Your task to perform on an android device: Open the phone app and click the voicemail tab. Image 0: 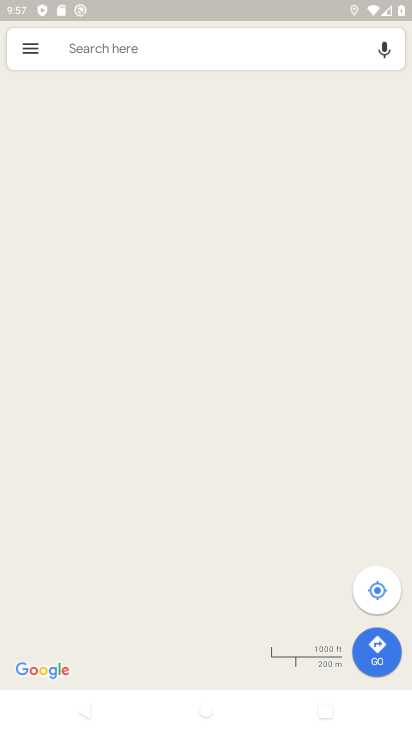
Step 0: press home button
Your task to perform on an android device: Open the phone app and click the voicemail tab. Image 1: 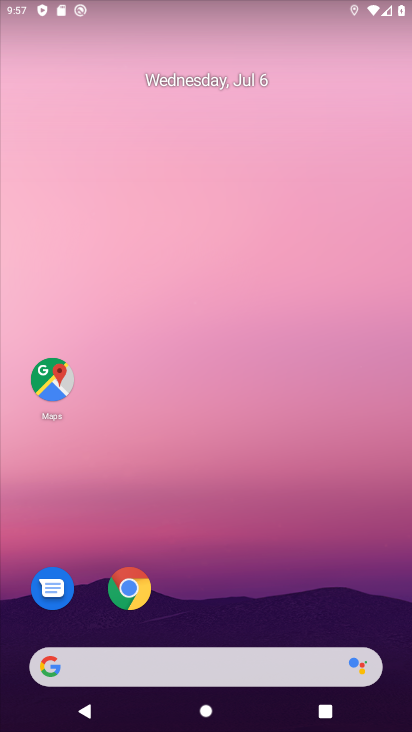
Step 1: drag from (245, 628) to (238, 208)
Your task to perform on an android device: Open the phone app and click the voicemail tab. Image 2: 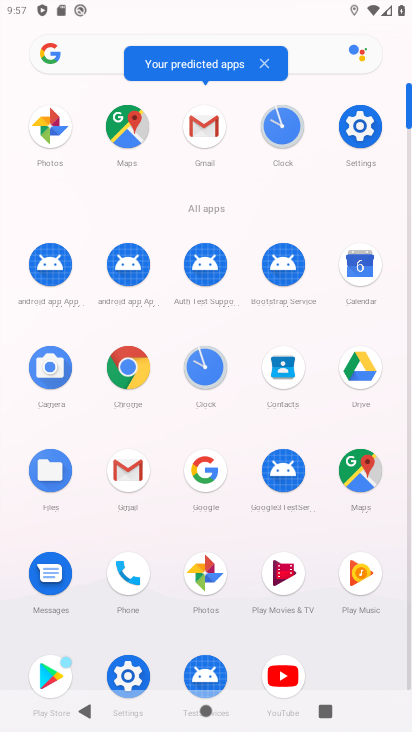
Step 2: click (115, 574)
Your task to perform on an android device: Open the phone app and click the voicemail tab. Image 3: 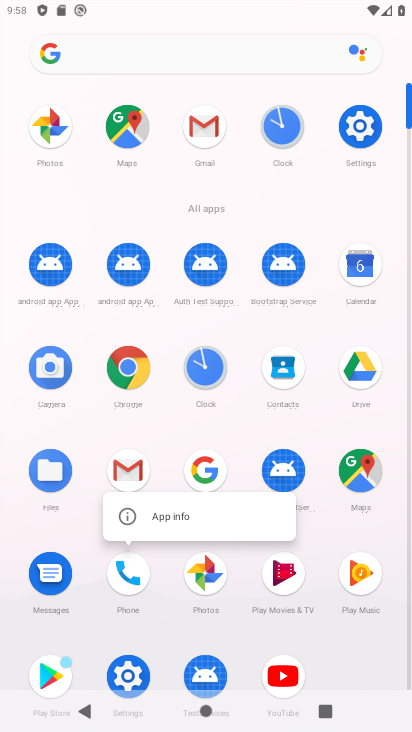
Step 3: click (128, 569)
Your task to perform on an android device: Open the phone app and click the voicemail tab. Image 4: 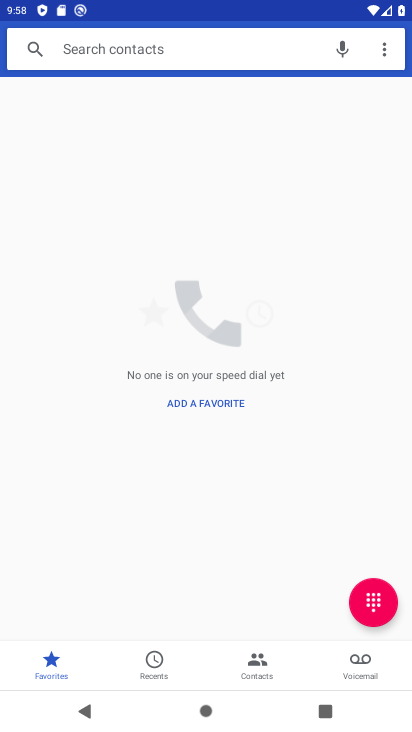
Step 4: click (365, 659)
Your task to perform on an android device: Open the phone app and click the voicemail tab. Image 5: 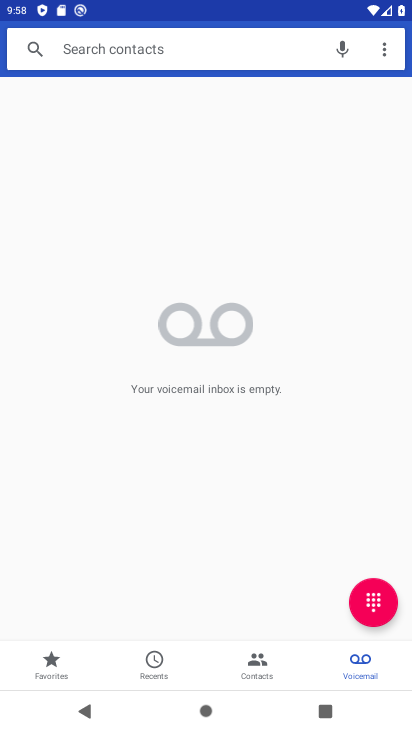
Step 5: task complete